Your task to perform on an android device: Go to Android settings Image 0: 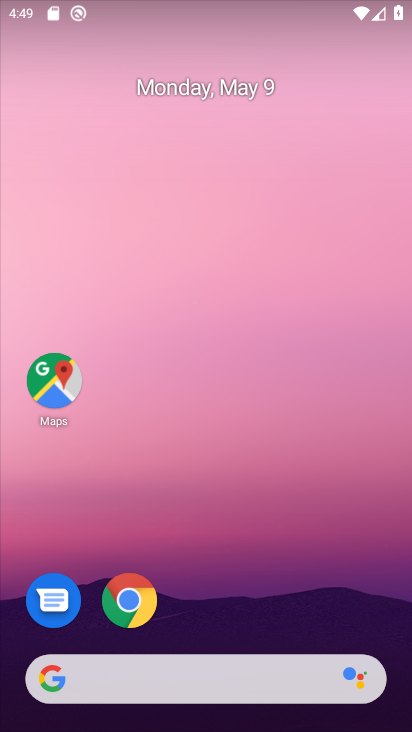
Step 0: drag from (299, 668) to (407, 21)
Your task to perform on an android device: Go to Android settings Image 1: 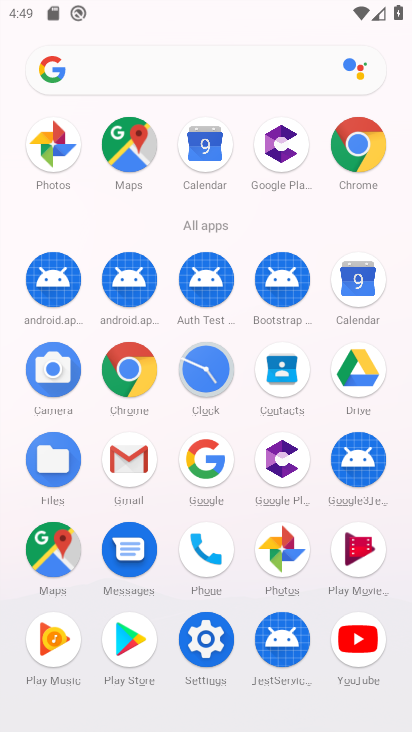
Step 1: click (210, 648)
Your task to perform on an android device: Go to Android settings Image 2: 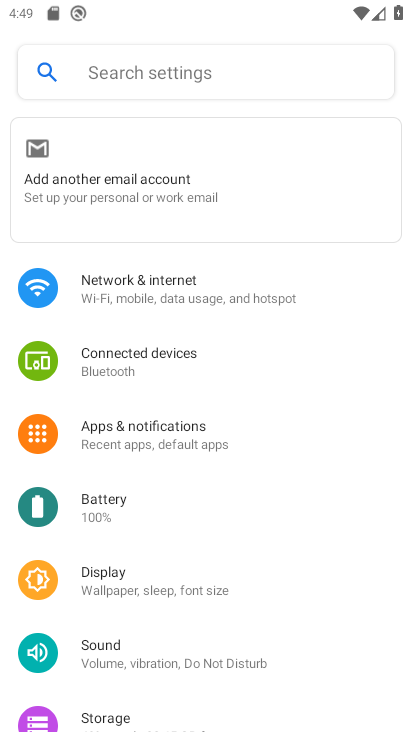
Step 2: drag from (180, 669) to (257, 86)
Your task to perform on an android device: Go to Android settings Image 3: 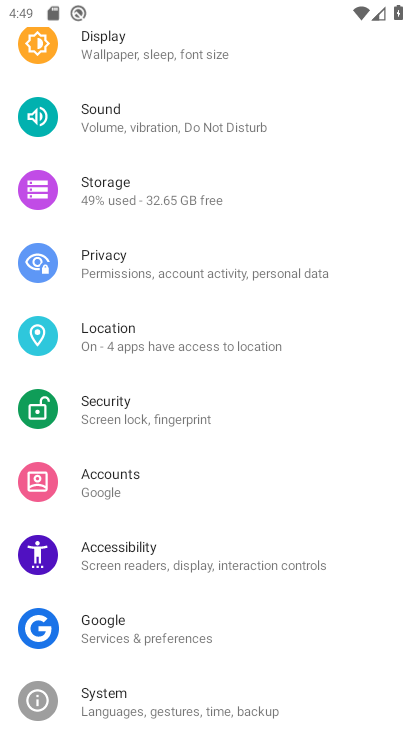
Step 3: drag from (164, 710) to (290, 106)
Your task to perform on an android device: Go to Android settings Image 4: 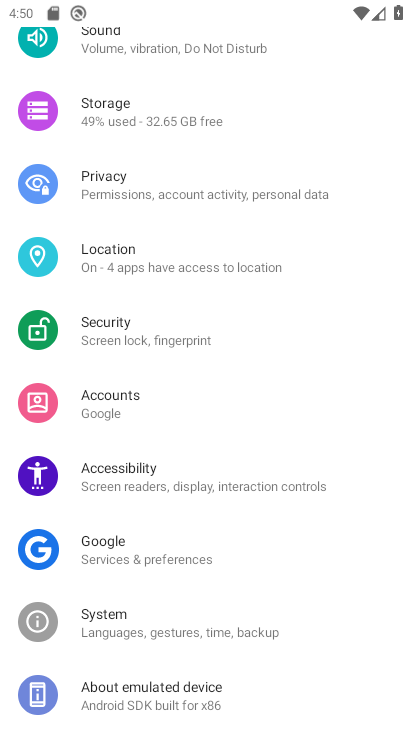
Step 4: click (250, 695)
Your task to perform on an android device: Go to Android settings Image 5: 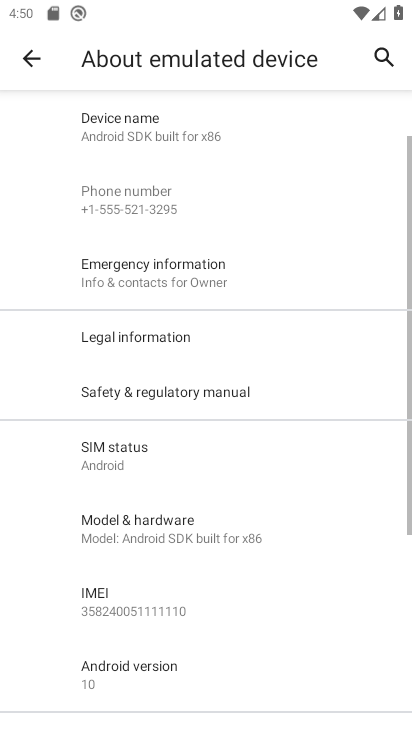
Step 5: click (198, 671)
Your task to perform on an android device: Go to Android settings Image 6: 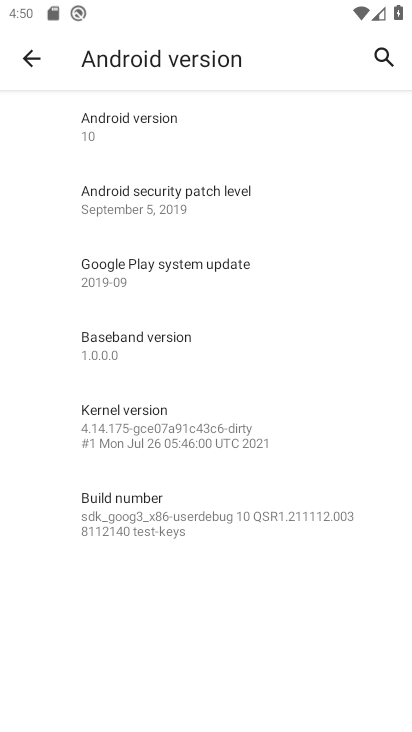
Step 6: task complete